Your task to perform on an android device: turn on improve location accuracy Image 0: 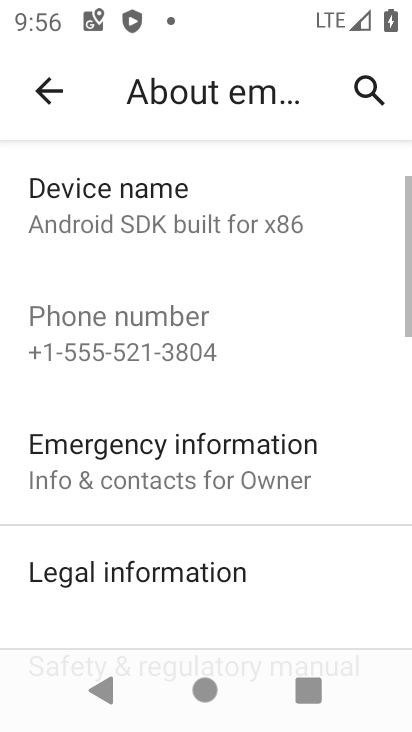
Step 0: press home button
Your task to perform on an android device: turn on improve location accuracy Image 1: 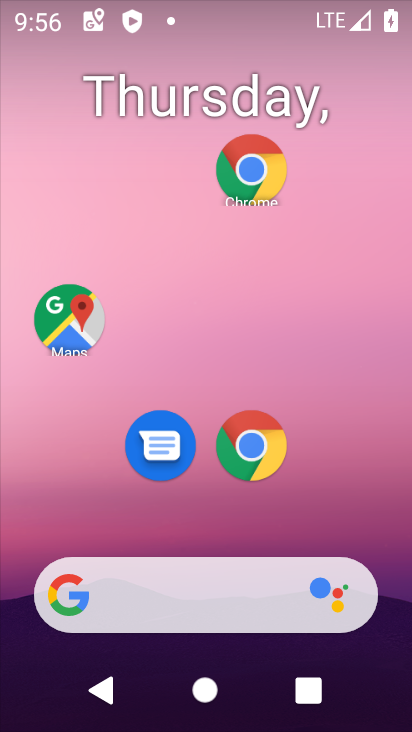
Step 1: drag from (224, 539) to (289, 1)
Your task to perform on an android device: turn on improve location accuracy Image 2: 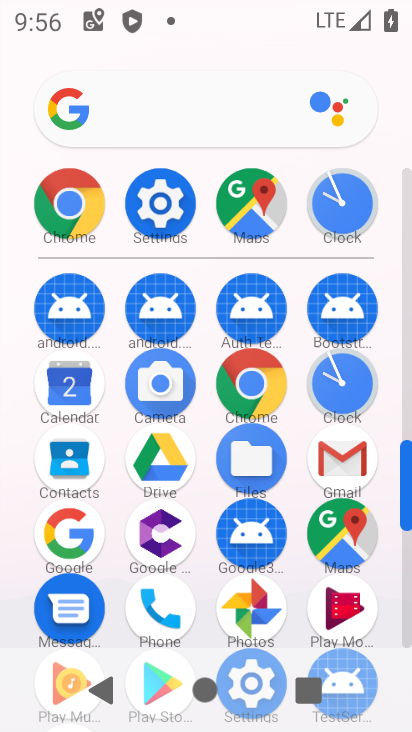
Step 2: click (141, 209)
Your task to perform on an android device: turn on improve location accuracy Image 3: 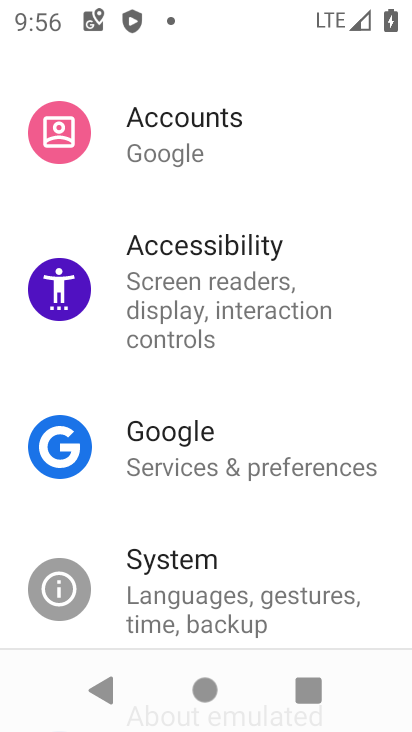
Step 3: drag from (212, 208) to (216, 553)
Your task to perform on an android device: turn on improve location accuracy Image 4: 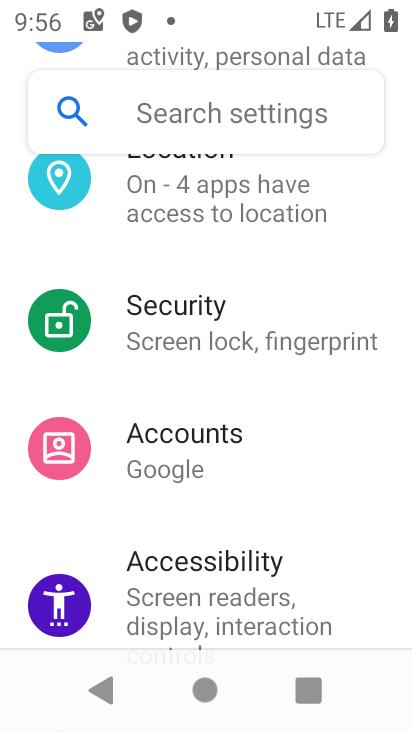
Step 4: drag from (256, 239) to (252, 427)
Your task to perform on an android device: turn on improve location accuracy Image 5: 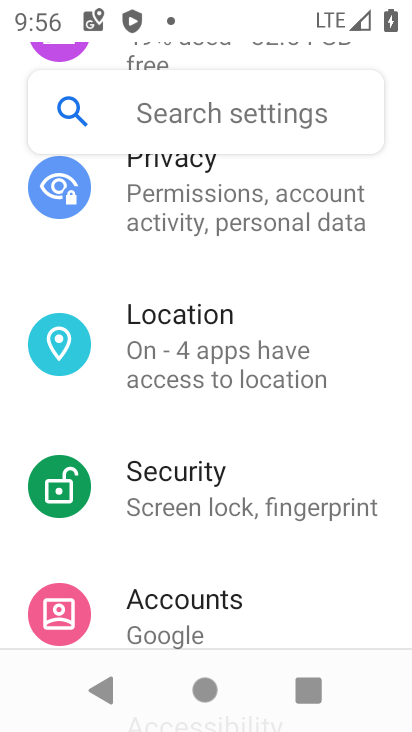
Step 5: click (225, 354)
Your task to perform on an android device: turn on improve location accuracy Image 6: 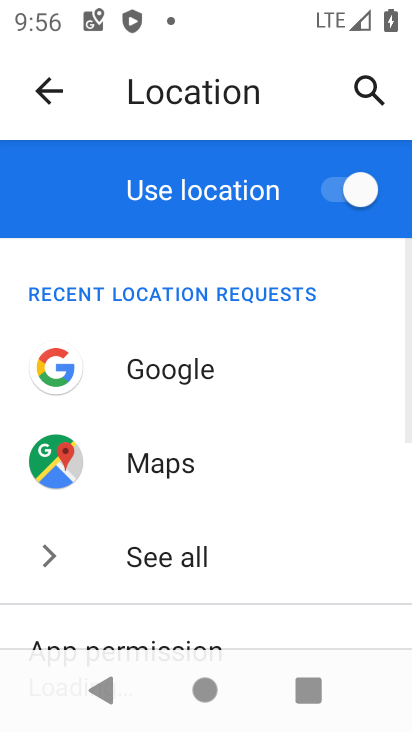
Step 6: drag from (227, 454) to (187, 101)
Your task to perform on an android device: turn on improve location accuracy Image 7: 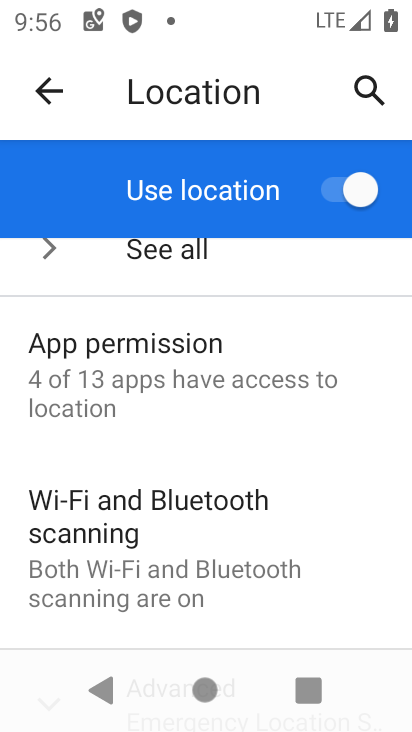
Step 7: drag from (223, 593) to (170, 138)
Your task to perform on an android device: turn on improve location accuracy Image 8: 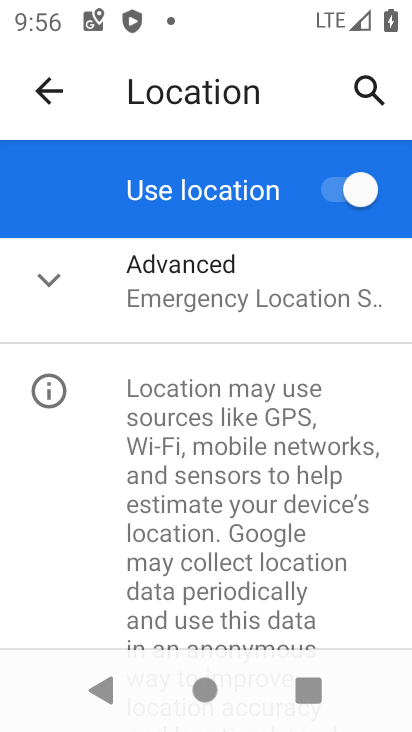
Step 8: click (177, 317)
Your task to perform on an android device: turn on improve location accuracy Image 9: 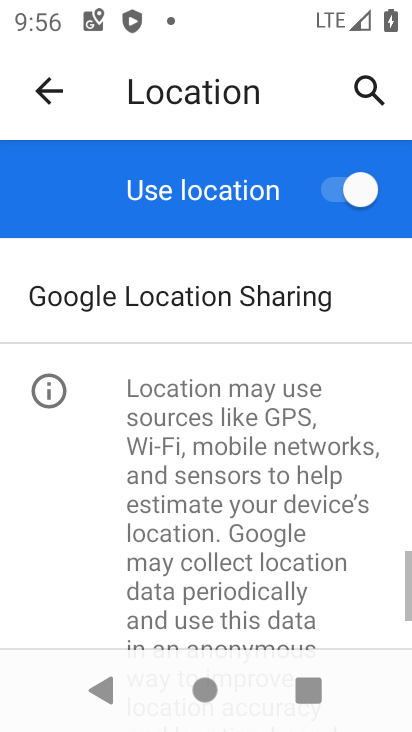
Step 9: drag from (247, 502) to (247, 614)
Your task to perform on an android device: turn on improve location accuracy Image 10: 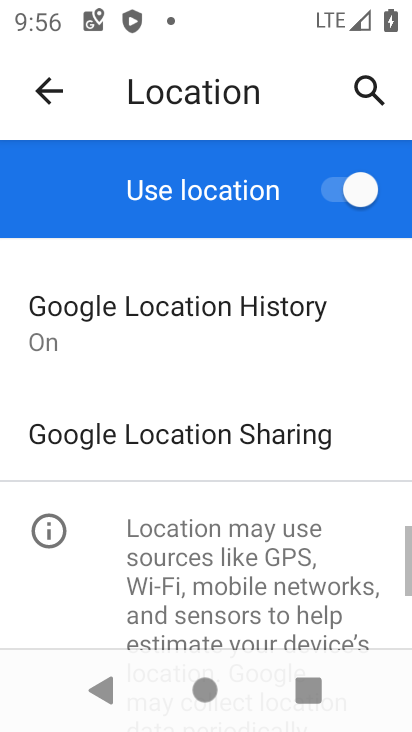
Step 10: drag from (266, 288) to (277, 526)
Your task to perform on an android device: turn on improve location accuracy Image 11: 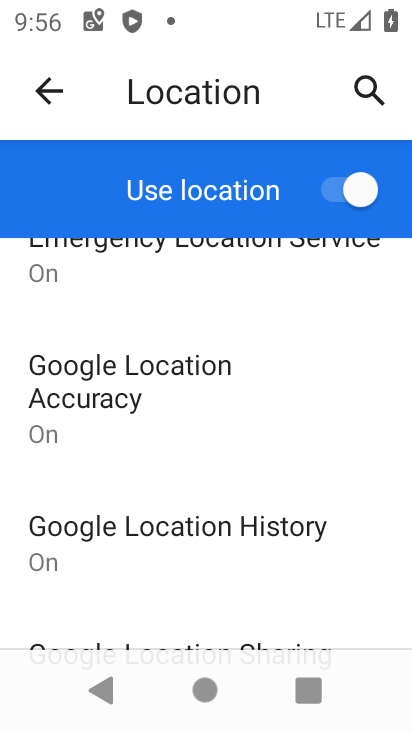
Step 11: click (219, 384)
Your task to perform on an android device: turn on improve location accuracy Image 12: 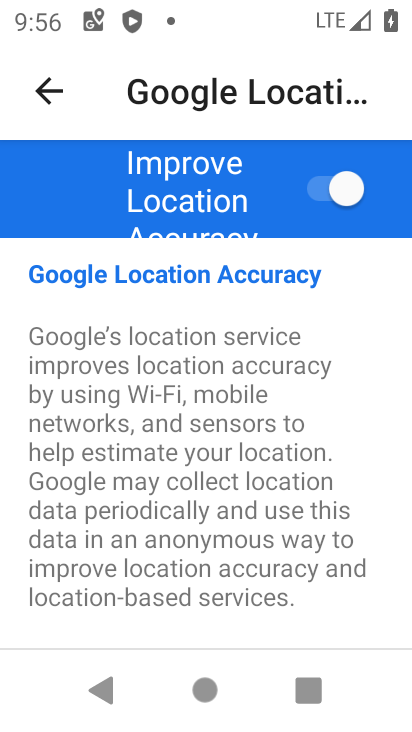
Step 12: task complete